Your task to perform on an android device: set an alarm Image 0: 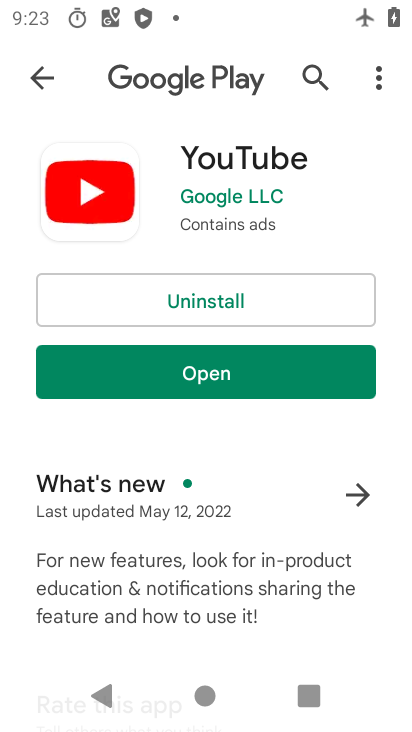
Step 0: press home button
Your task to perform on an android device: set an alarm Image 1: 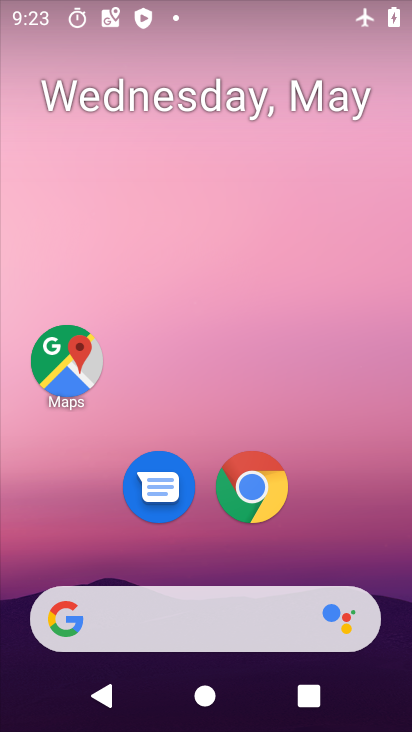
Step 1: drag from (221, 567) to (224, 98)
Your task to perform on an android device: set an alarm Image 2: 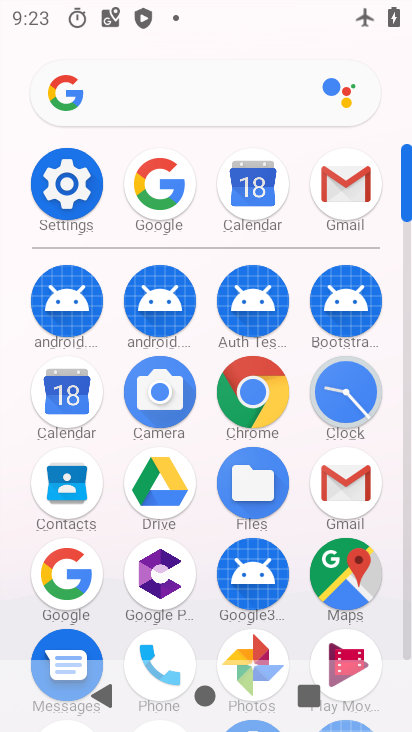
Step 2: click (333, 398)
Your task to perform on an android device: set an alarm Image 3: 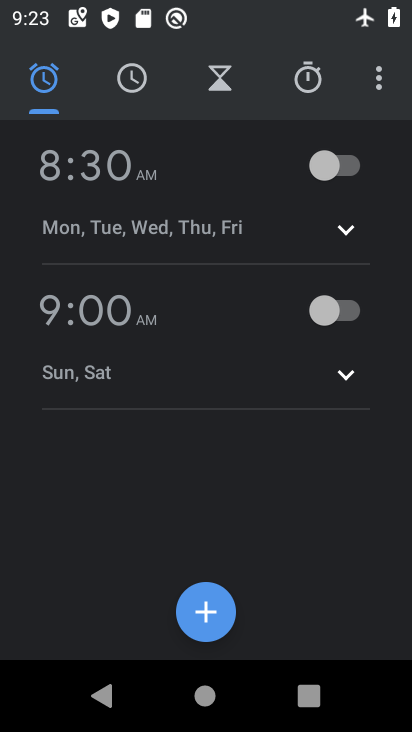
Step 3: click (356, 169)
Your task to perform on an android device: set an alarm Image 4: 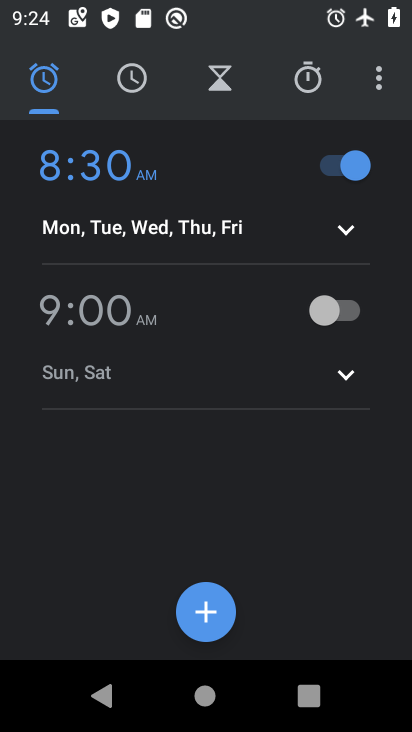
Step 4: task complete